Your task to perform on an android device: Open maps Image 0: 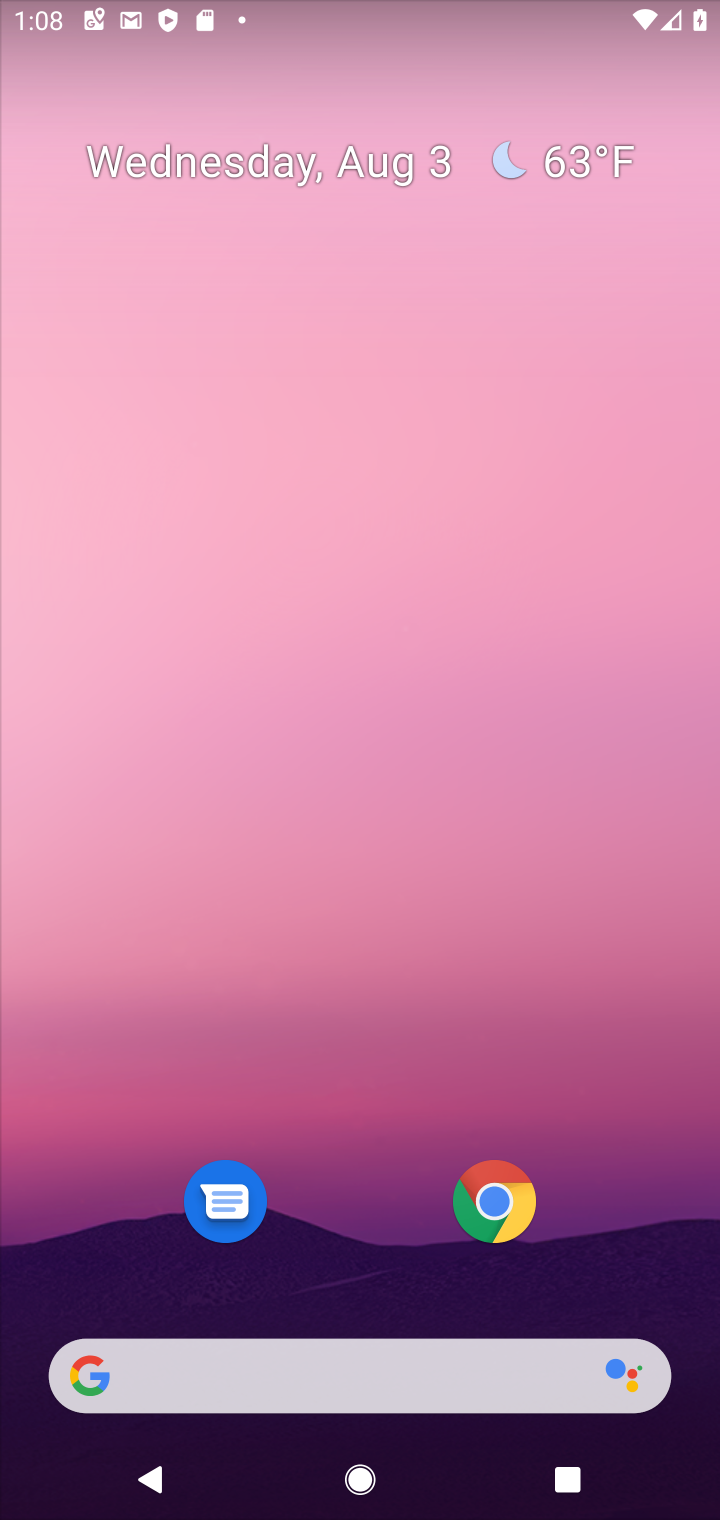
Step 0: drag from (391, 1366) to (579, 20)
Your task to perform on an android device: Open maps Image 1: 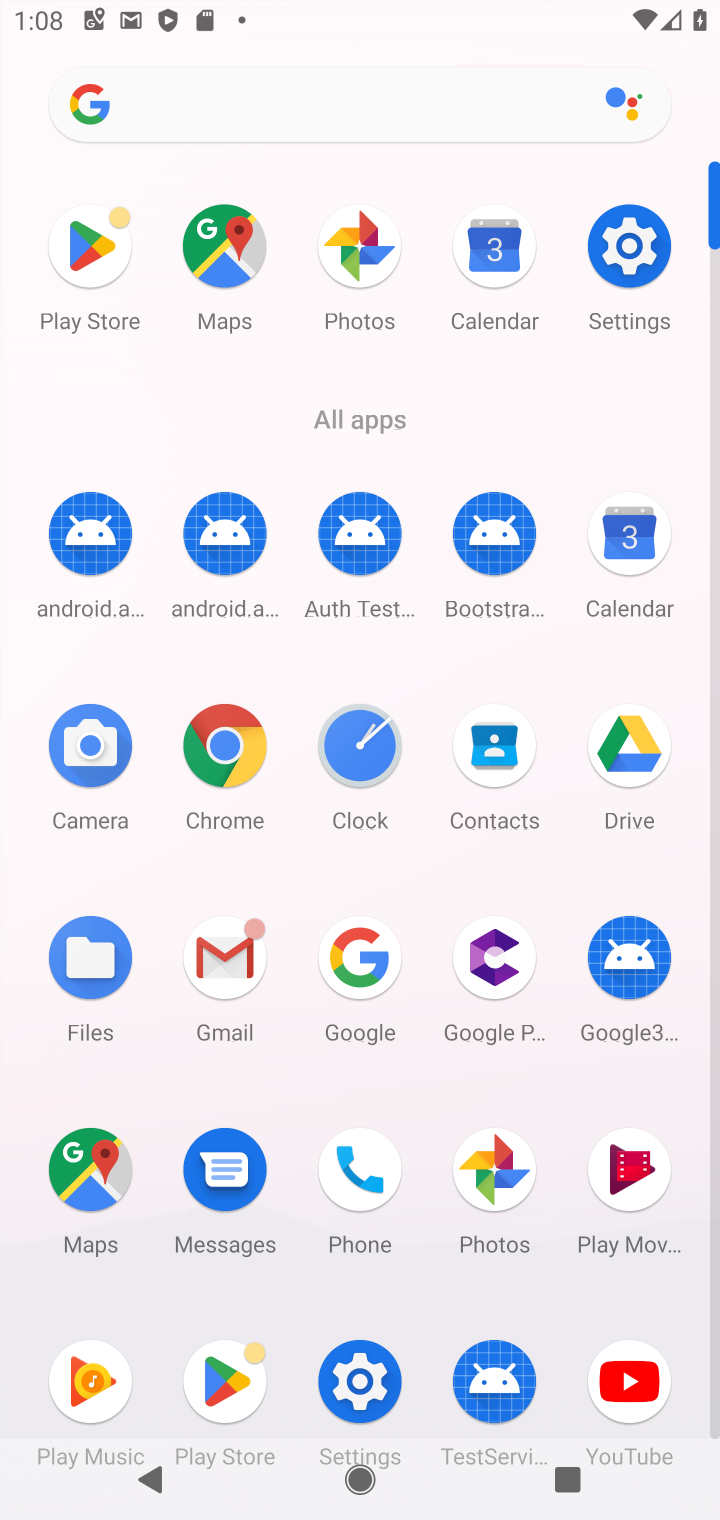
Step 1: drag from (94, 1173) to (253, 817)
Your task to perform on an android device: Open maps Image 2: 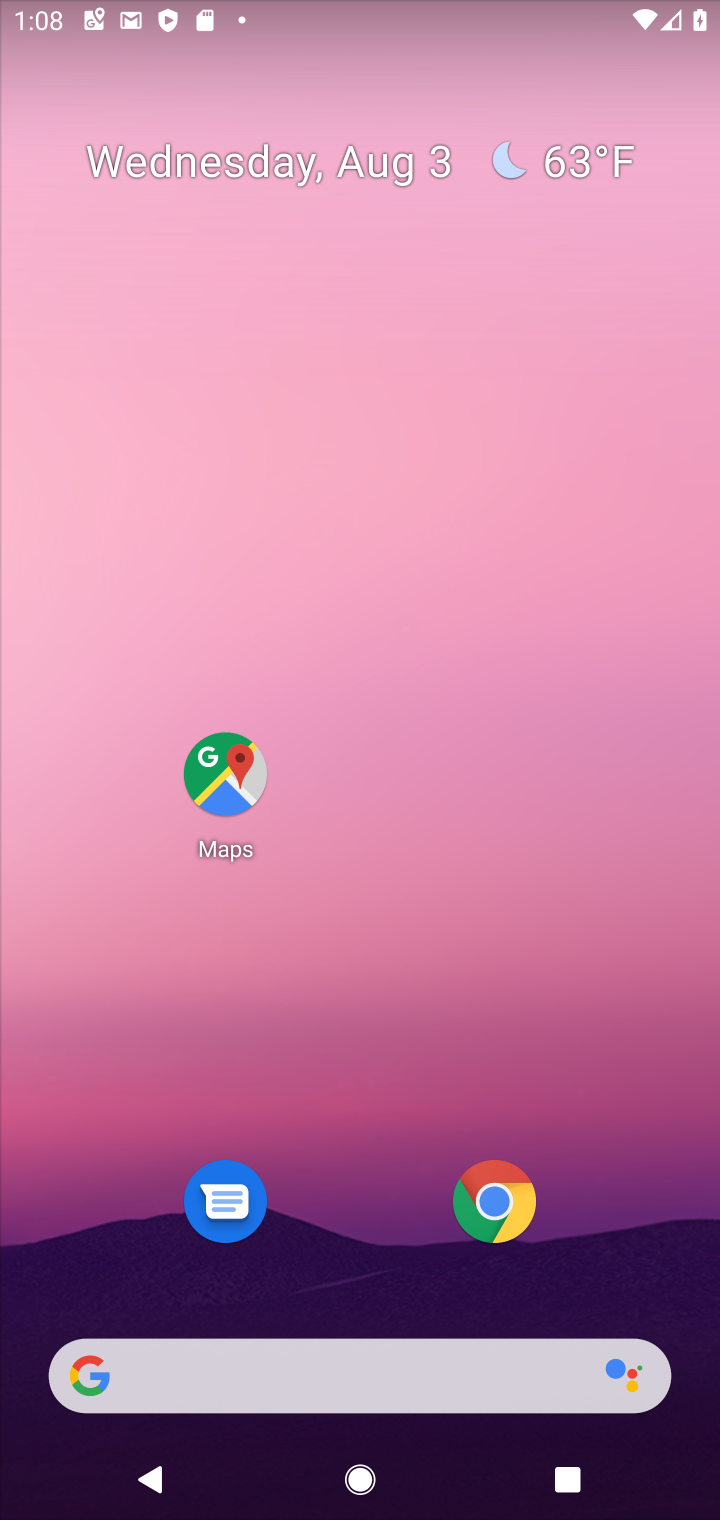
Step 2: click (209, 785)
Your task to perform on an android device: Open maps Image 3: 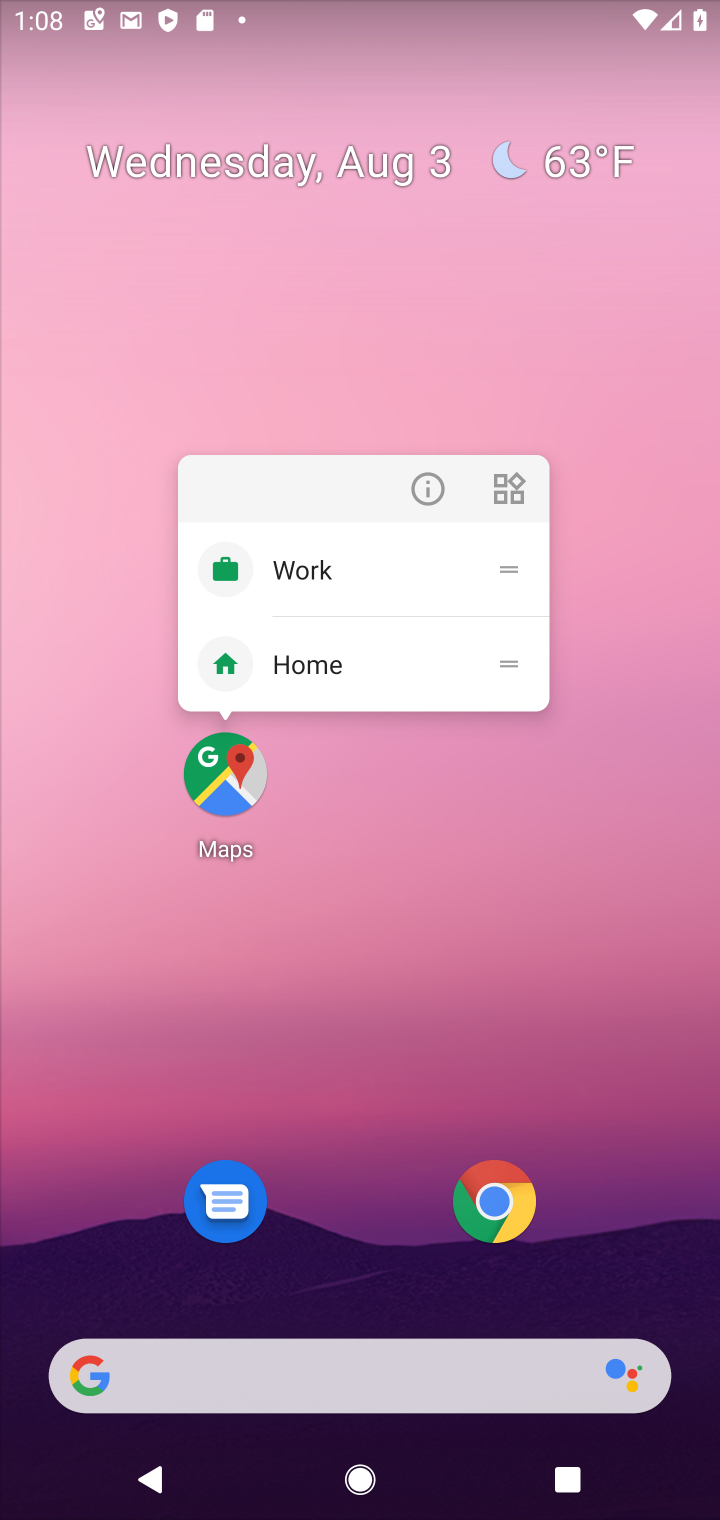
Step 3: click (220, 773)
Your task to perform on an android device: Open maps Image 4: 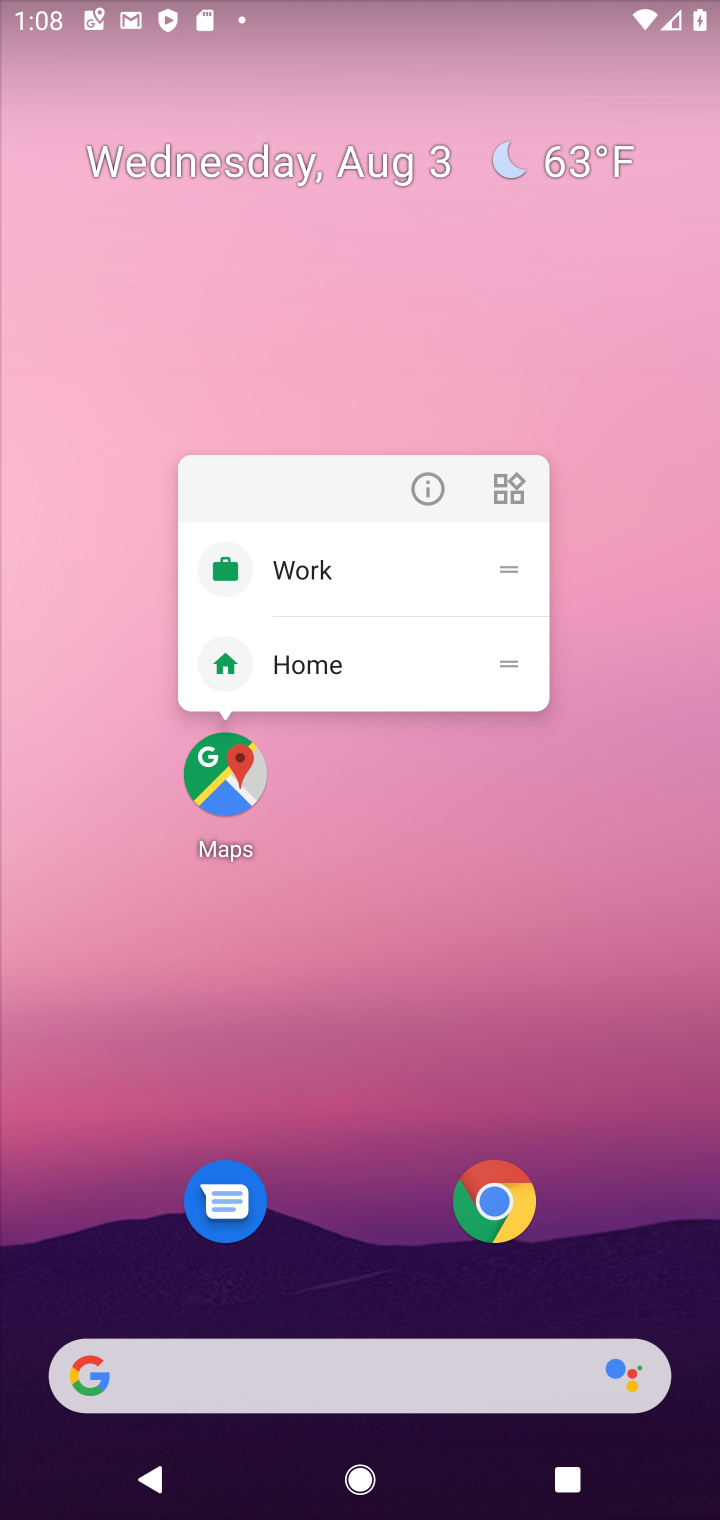
Step 4: click (220, 773)
Your task to perform on an android device: Open maps Image 5: 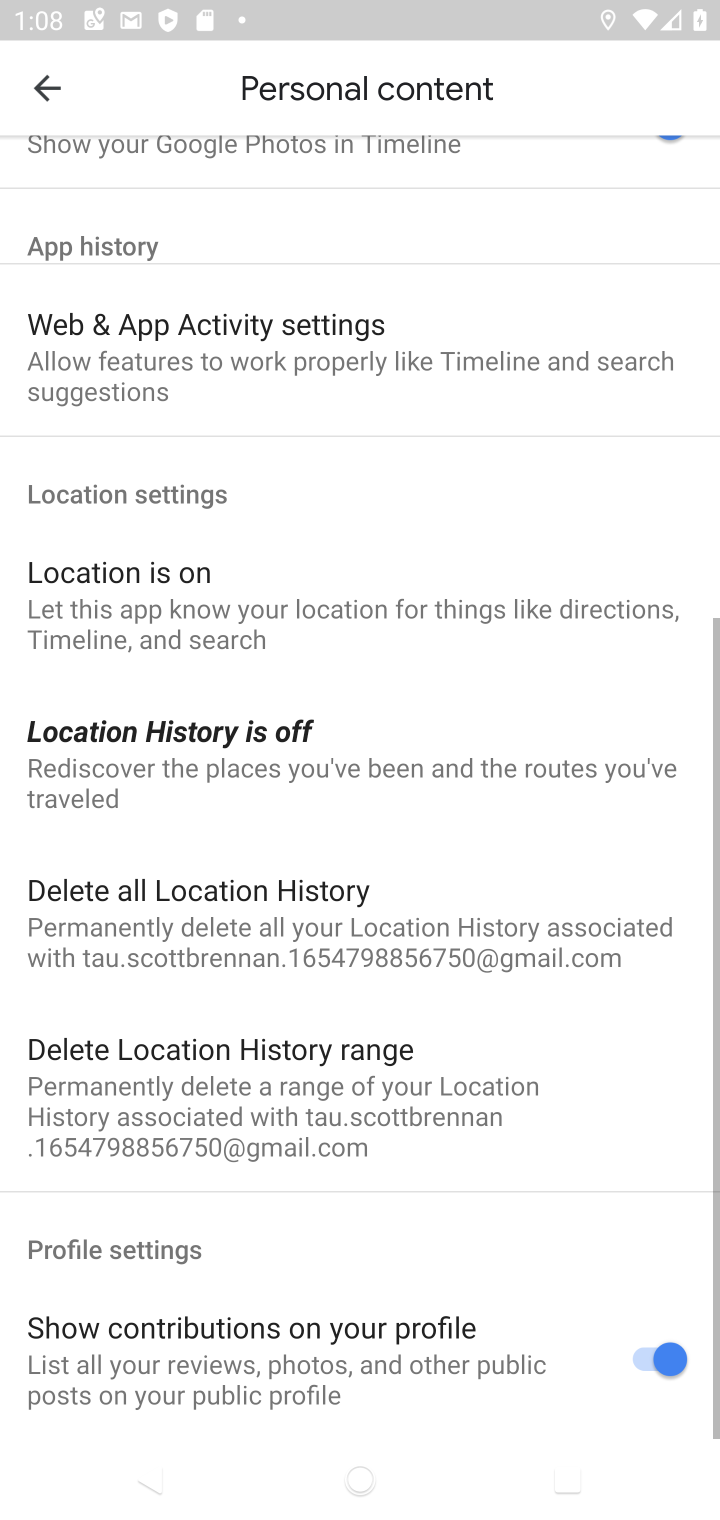
Step 5: click (43, 94)
Your task to perform on an android device: Open maps Image 6: 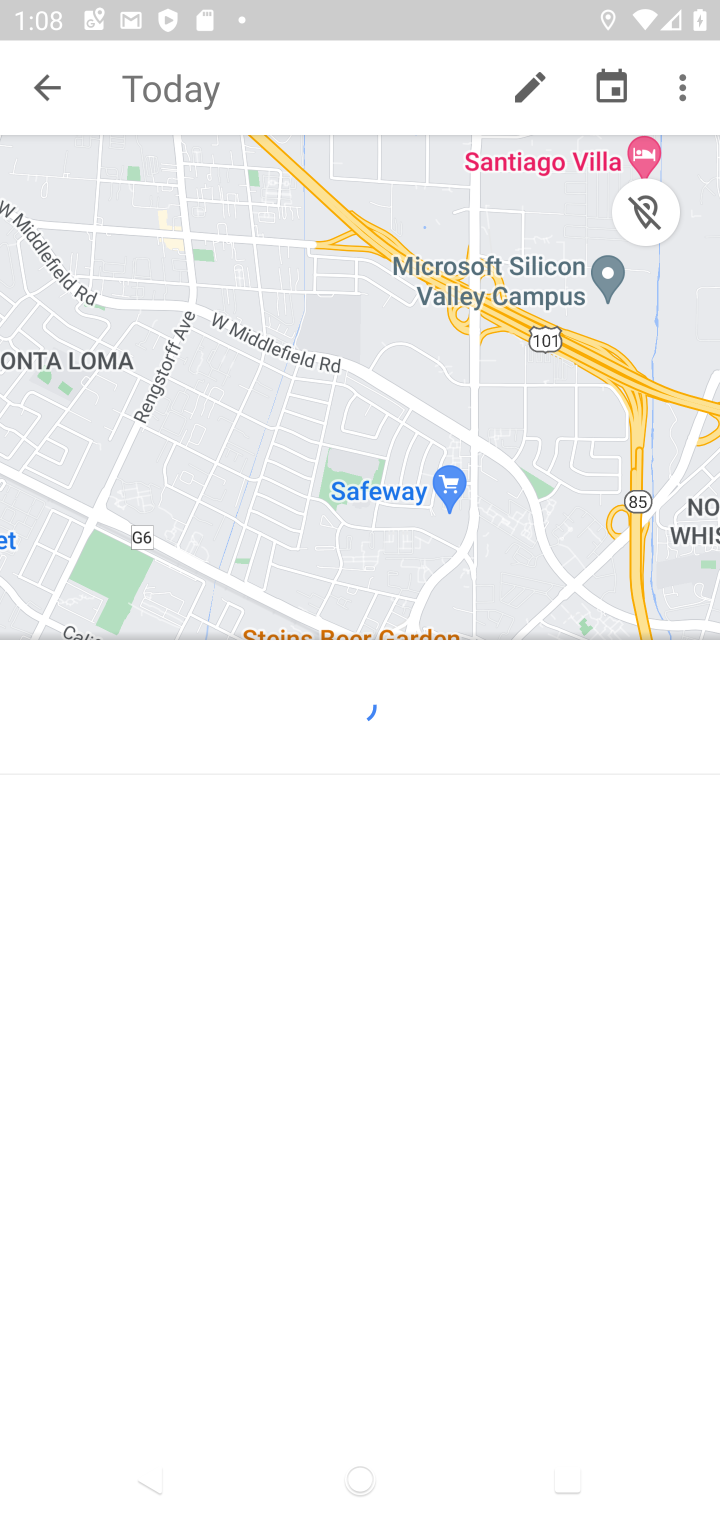
Step 6: click (50, 83)
Your task to perform on an android device: Open maps Image 7: 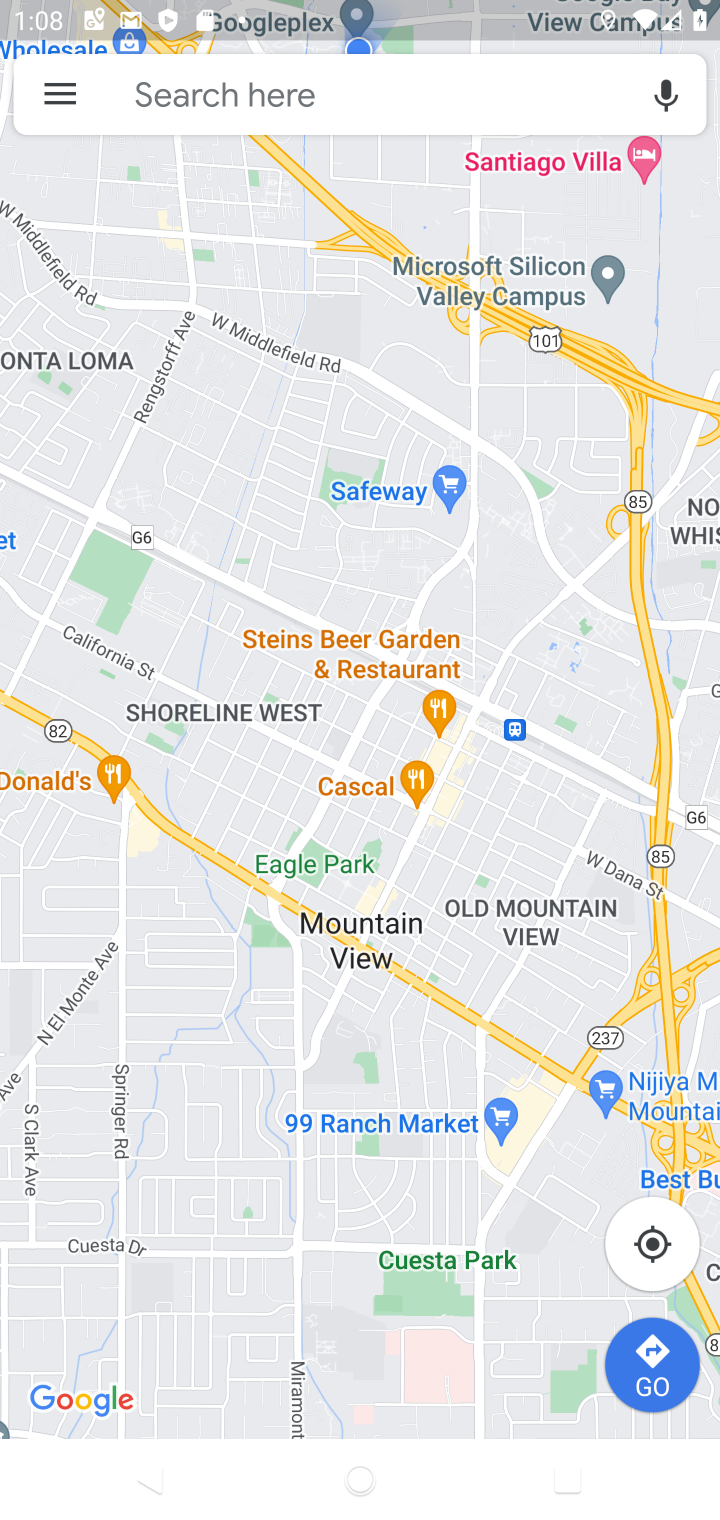
Step 7: task complete